Your task to perform on an android device: When is my next meeting? Image 0: 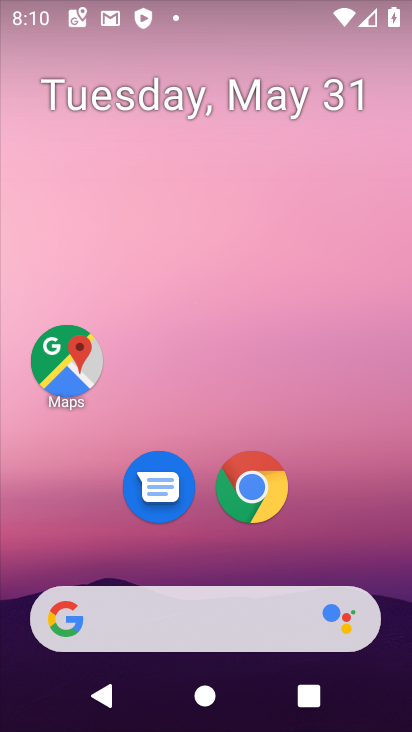
Step 0: drag from (174, 715) to (100, 210)
Your task to perform on an android device: When is my next meeting? Image 1: 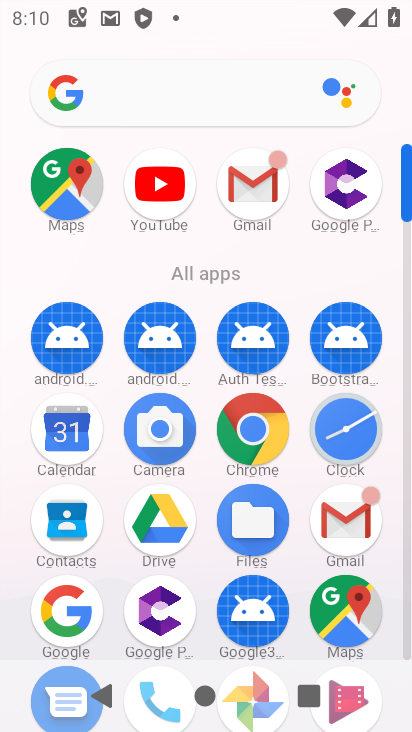
Step 1: click (57, 440)
Your task to perform on an android device: When is my next meeting? Image 2: 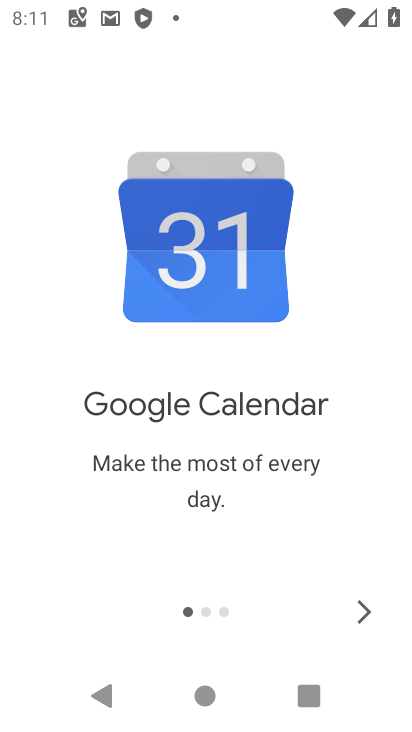
Step 2: click (362, 612)
Your task to perform on an android device: When is my next meeting? Image 3: 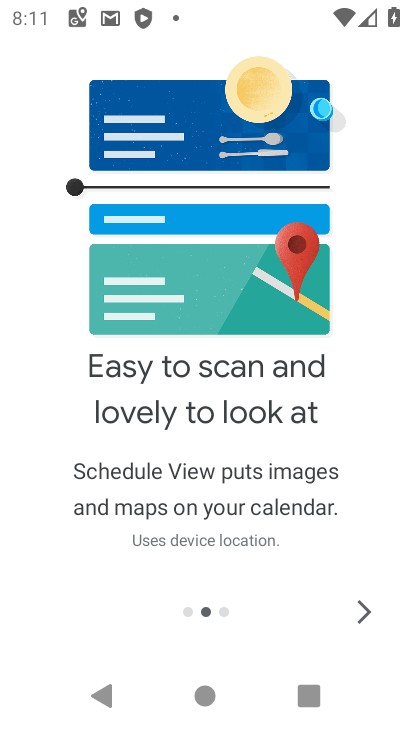
Step 3: click (362, 612)
Your task to perform on an android device: When is my next meeting? Image 4: 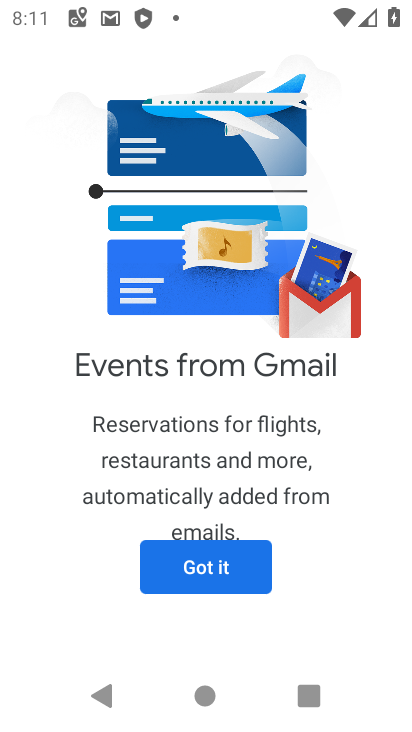
Step 4: click (231, 595)
Your task to perform on an android device: When is my next meeting? Image 5: 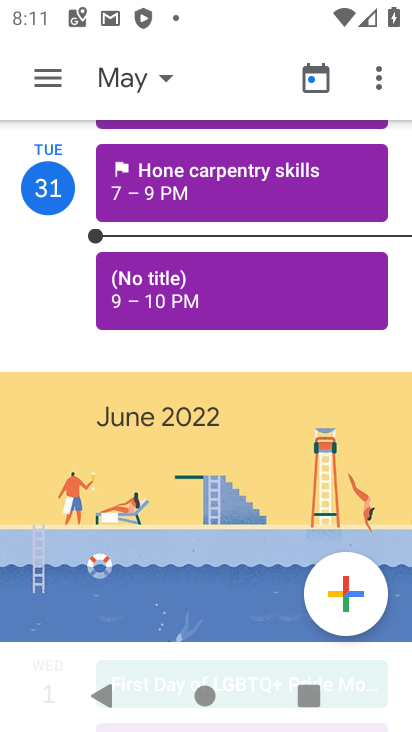
Step 5: click (198, 313)
Your task to perform on an android device: When is my next meeting? Image 6: 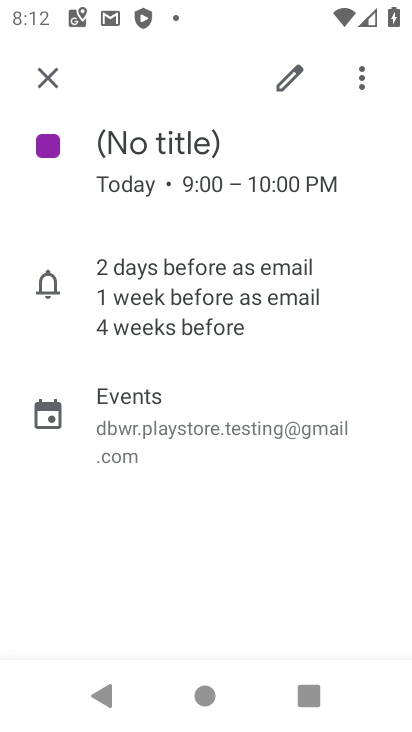
Step 6: task complete